Your task to perform on an android device: Show me productivity apps on the Play Store Image 0: 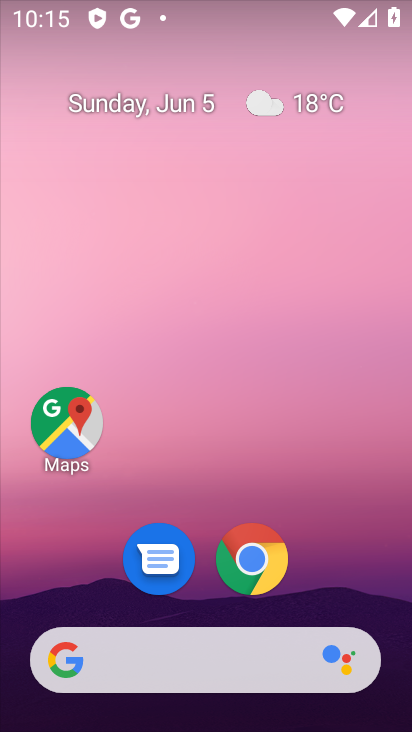
Step 0: click (115, 310)
Your task to perform on an android device: Show me productivity apps on the Play Store Image 1: 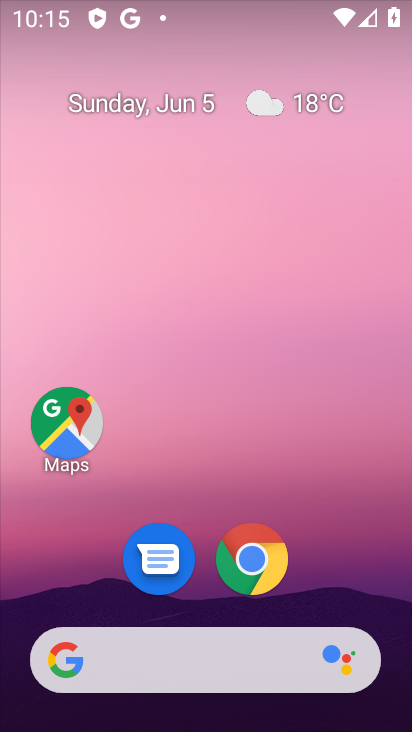
Step 1: drag from (401, 707) to (361, 32)
Your task to perform on an android device: Show me productivity apps on the Play Store Image 2: 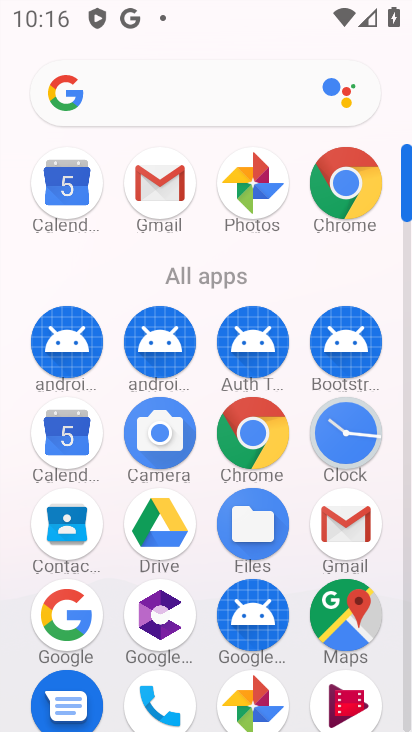
Step 2: drag from (200, 667) to (265, 206)
Your task to perform on an android device: Show me productivity apps on the Play Store Image 3: 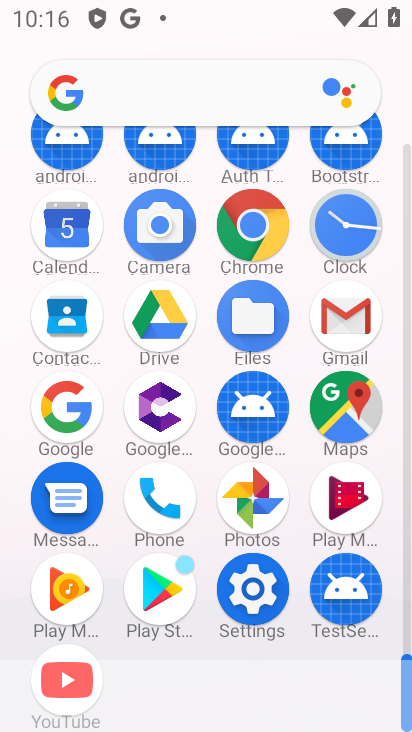
Step 3: click (157, 578)
Your task to perform on an android device: Show me productivity apps on the Play Store Image 4: 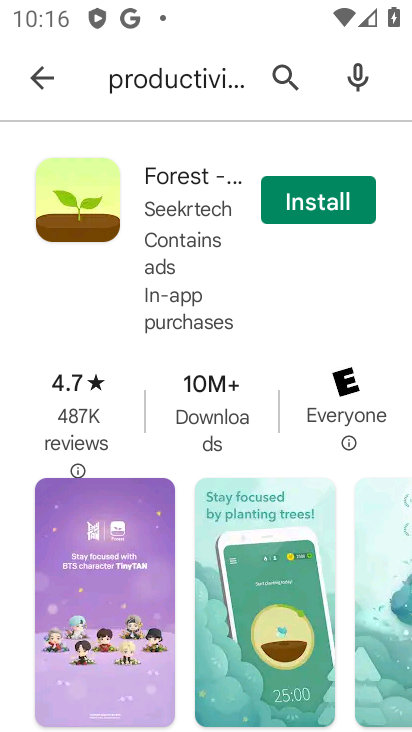
Step 4: click (29, 77)
Your task to perform on an android device: Show me productivity apps on the Play Store Image 5: 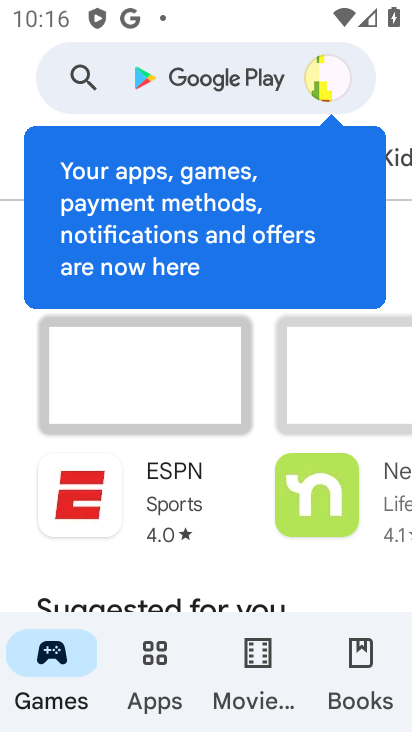
Step 5: click (259, 81)
Your task to perform on an android device: Show me productivity apps on the Play Store Image 6: 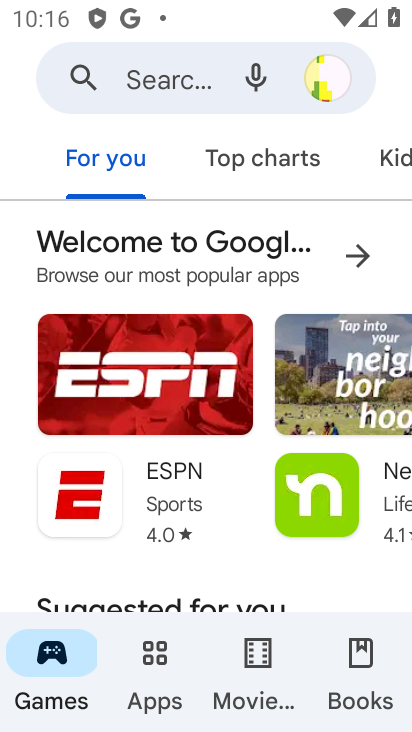
Step 6: type "productivity apps"
Your task to perform on an android device: Show me productivity apps on the Play Store Image 7: 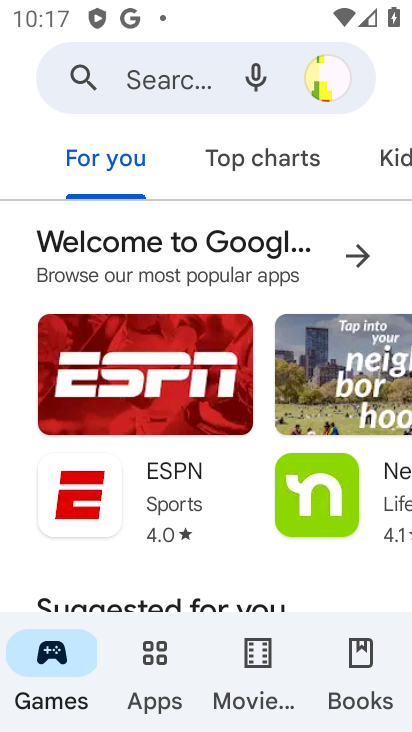
Step 7: click (174, 71)
Your task to perform on an android device: Show me productivity apps on the Play Store Image 8: 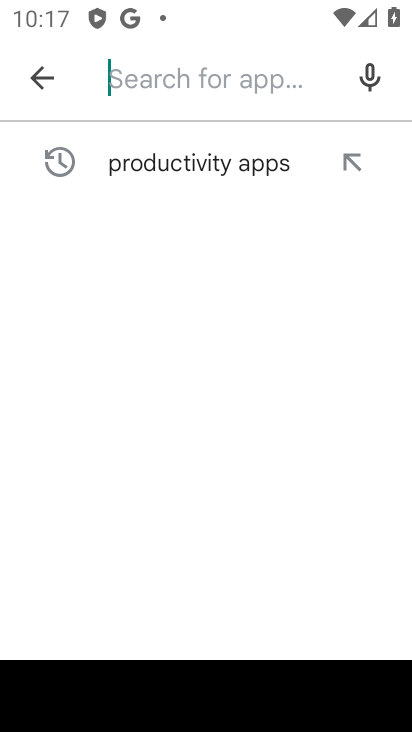
Step 8: click (236, 164)
Your task to perform on an android device: Show me productivity apps on the Play Store Image 9: 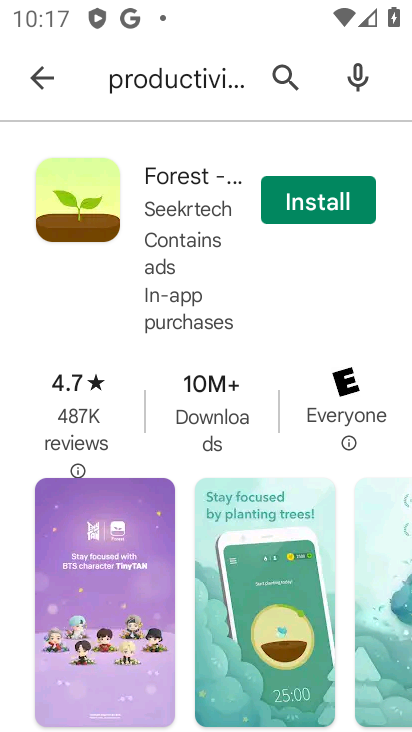
Step 9: task complete